Your task to perform on an android device: Open Chrome and go to the settings page Image 0: 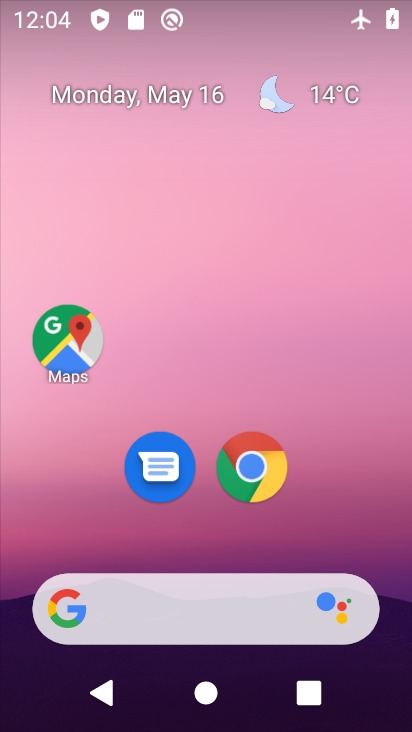
Step 0: click (244, 454)
Your task to perform on an android device: Open Chrome and go to the settings page Image 1: 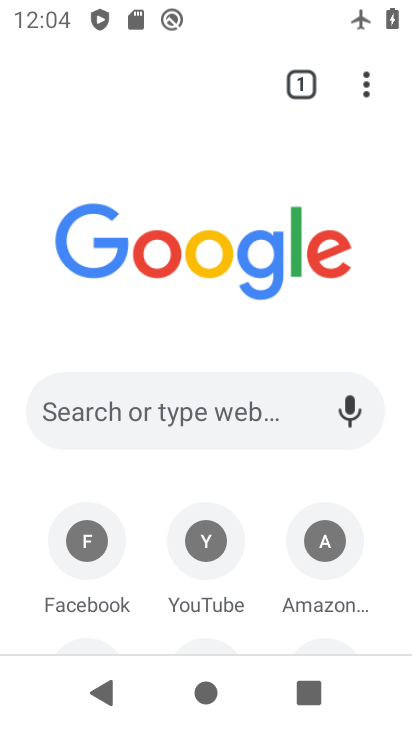
Step 1: click (350, 87)
Your task to perform on an android device: Open Chrome and go to the settings page Image 2: 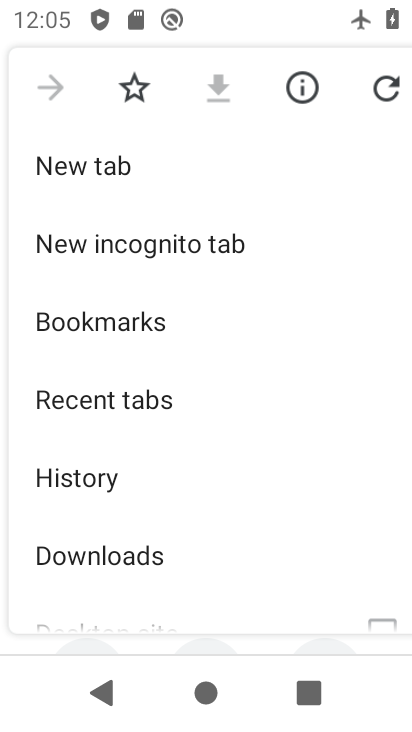
Step 2: drag from (205, 550) to (253, 114)
Your task to perform on an android device: Open Chrome and go to the settings page Image 3: 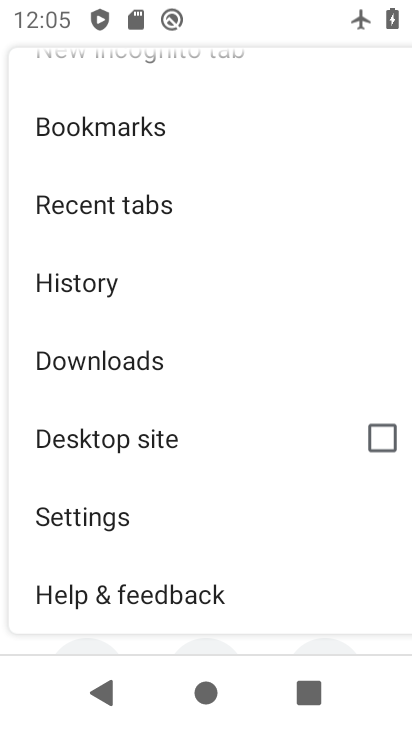
Step 3: click (103, 523)
Your task to perform on an android device: Open Chrome and go to the settings page Image 4: 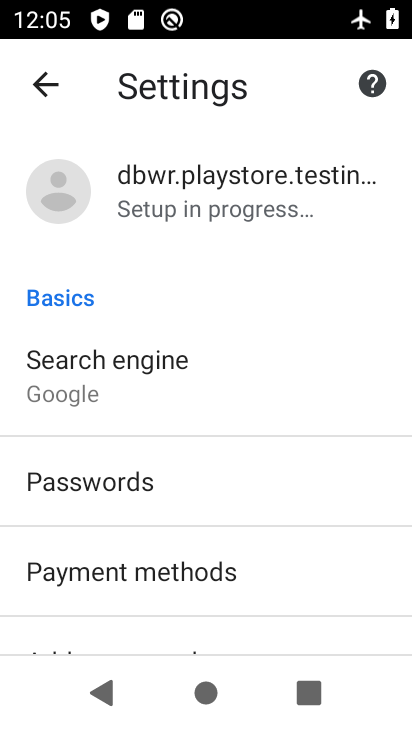
Step 4: task complete